Your task to perform on an android device: See recent photos Image 0: 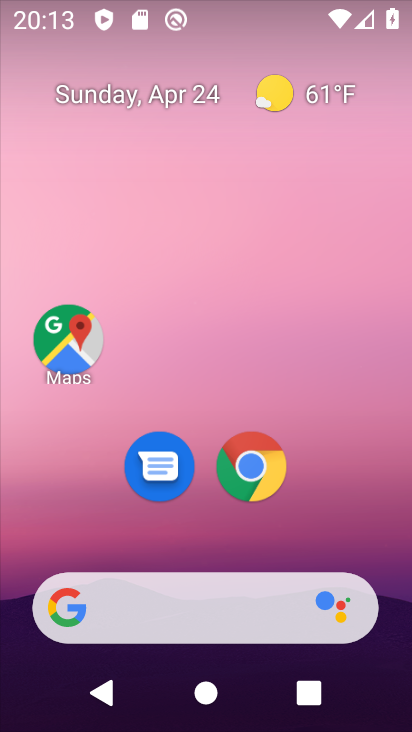
Step 0: drag from (206, 537) to (238, 2)
Your task to perform on an android device: See recent photos Image 1: 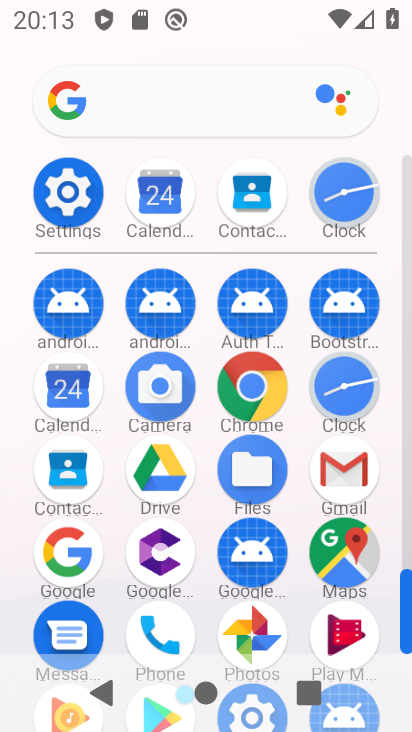
Step 1: click (254, 618)
Your task to perform on an android device: See recent photos Image 2: 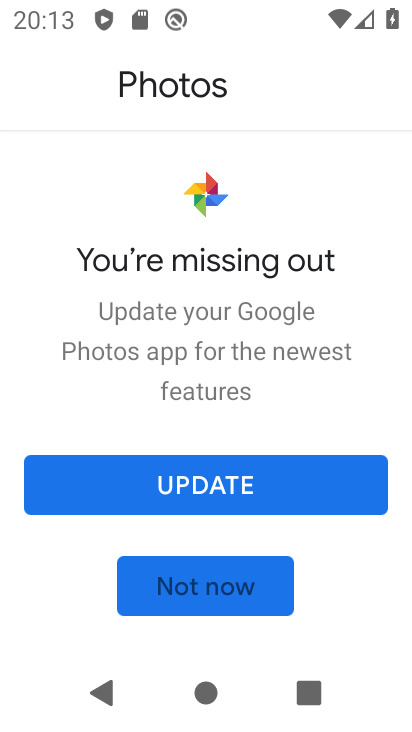
Step 2: click (210, 590)
Your task to perform on an android device: See recent photos Image 3: 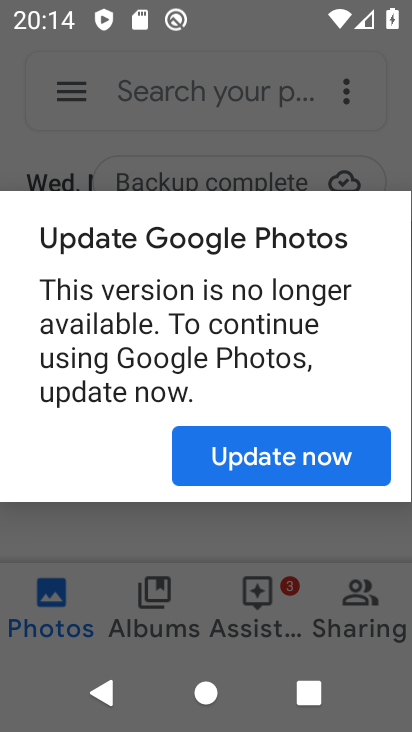
Step 3: click (272, 451)
Your task to perform on an android device: See recent photos Image 4: 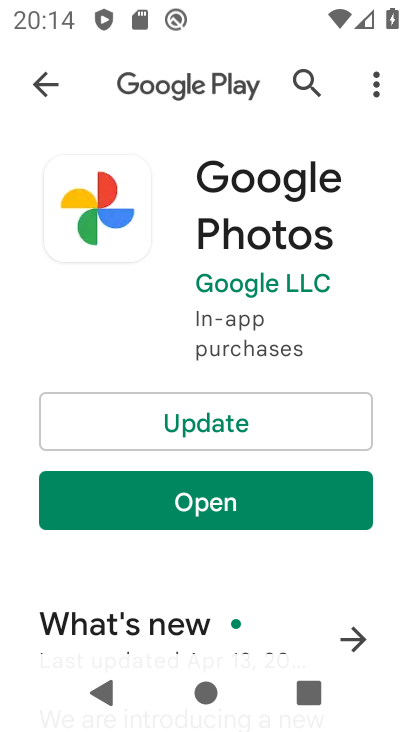
Step 4: click (220, 509)
Your task to perform on an android device: See recent photos Image 5: 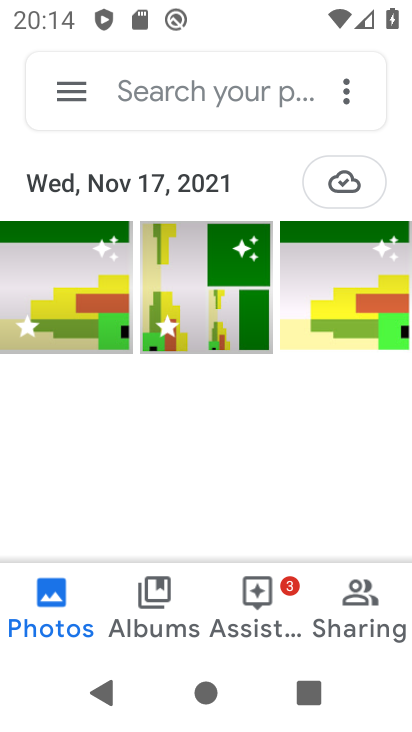
Step 5: click (95, 307)
Your task to perform on an android device: See recent photos Image 6: 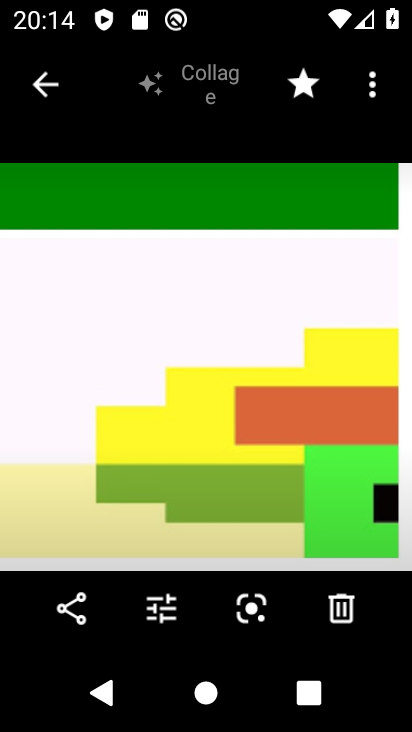
Step 6: task complete